Your task to perform on an android device: install app "Walmart Shopping & Grocery" Image 0: 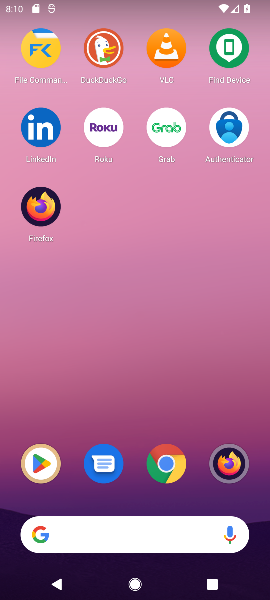
Step 0: click (33, 466)
Your task to perform on an android device: install app "Walmart Shopping & Grocery" Image 1: 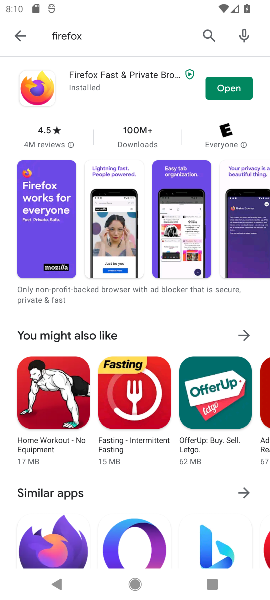
Step 1: click (214, 38)
Your task to perform on an android device: install app "Walmart Shopping & Grocery" Image 2: 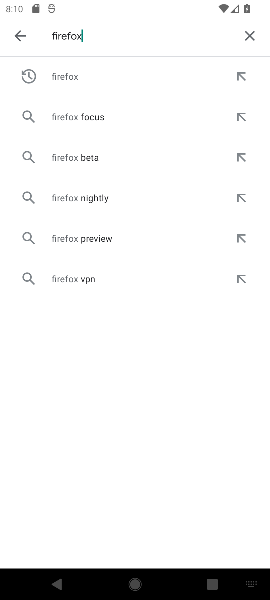
Step 2: click (244, 38)
Your task to perform on an android device: install app "Walmart Shopping & Grocery" Image 3: 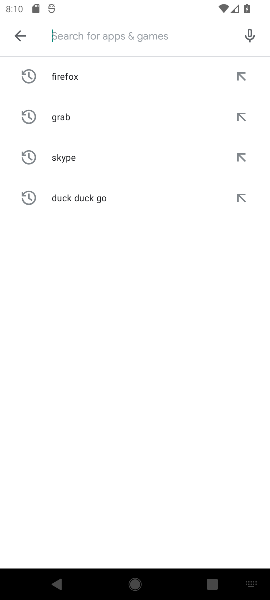
Step 3: type "walmart"
Your task to perform on an android device: install app "Walmart Shopping & Grocery" Image 4: 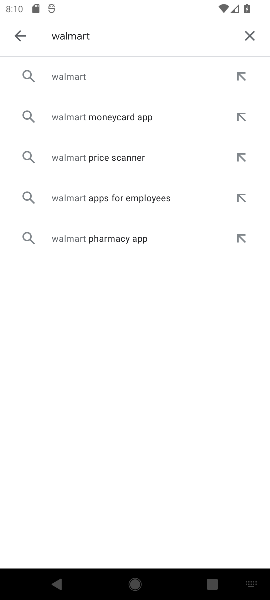
Step 4: click (122, 58)
Your task to perform on an android device: install app "Walmart Shopping & Grocery" Image 5: 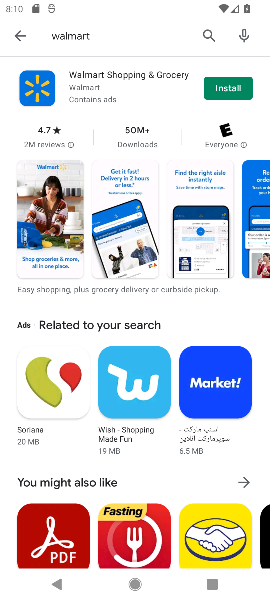
Step 5: click (242, 84)
Your task to perform on an android device: install app "Walmart Shopping & Grocery" Image 6: 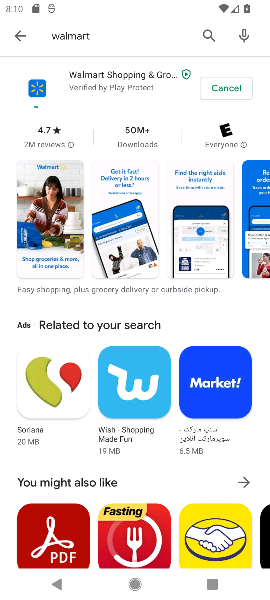
Step 6: task complete